Your task to perform on an android device: toggle priority inbox in the gmail app Image 0: 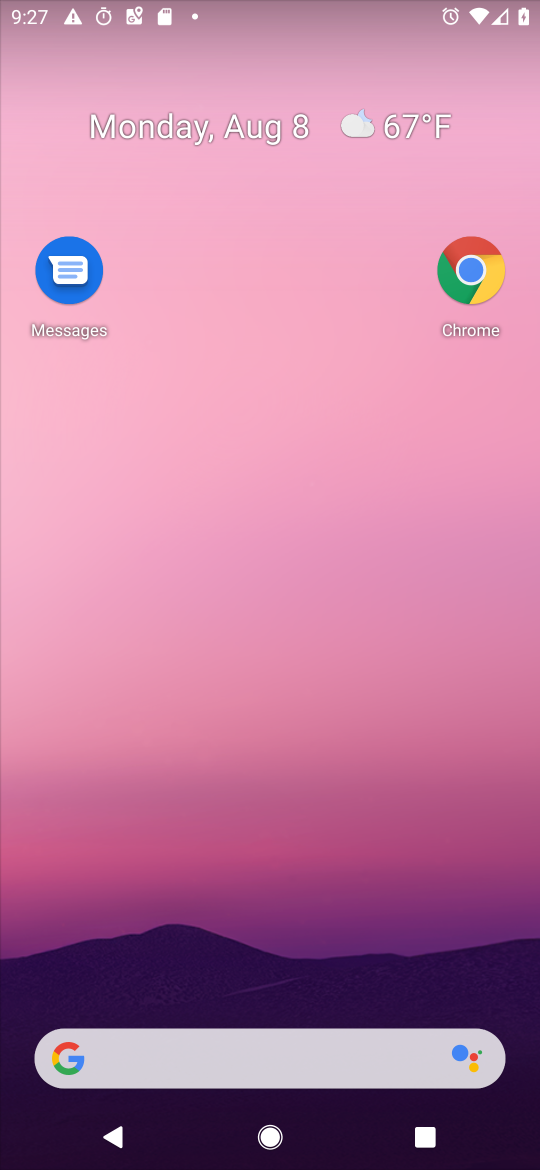
Step 0: drag from (174, 1005) to (321, 281)
Your task to perform on an android device: toggle priority inbox in the gmail app Image 1: 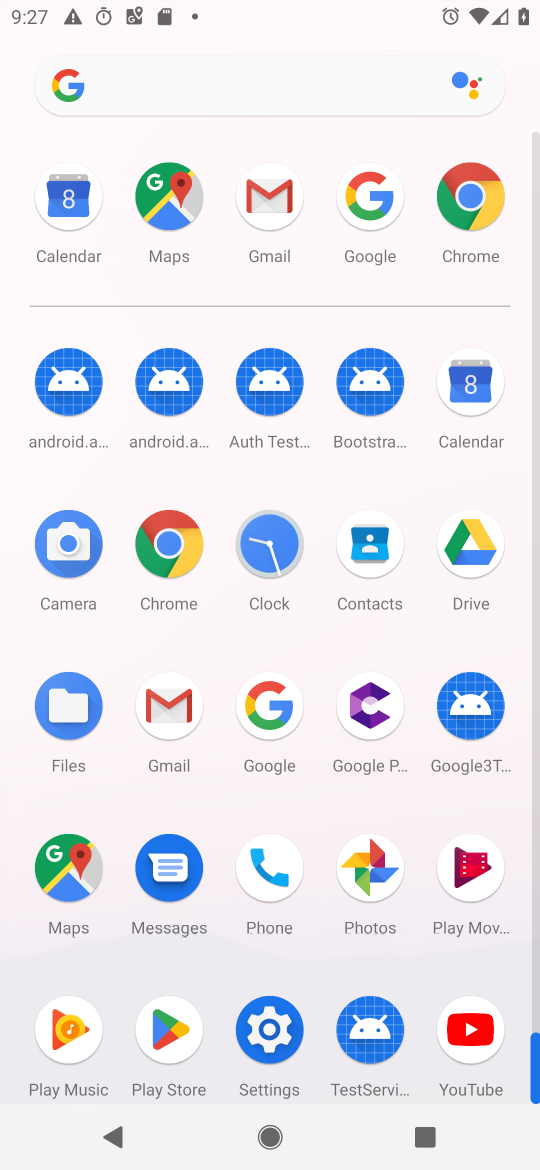
Step 1: click (166, 726)
Your task to perform on an android device: toggle priority inbox in the gmail app Image 2: 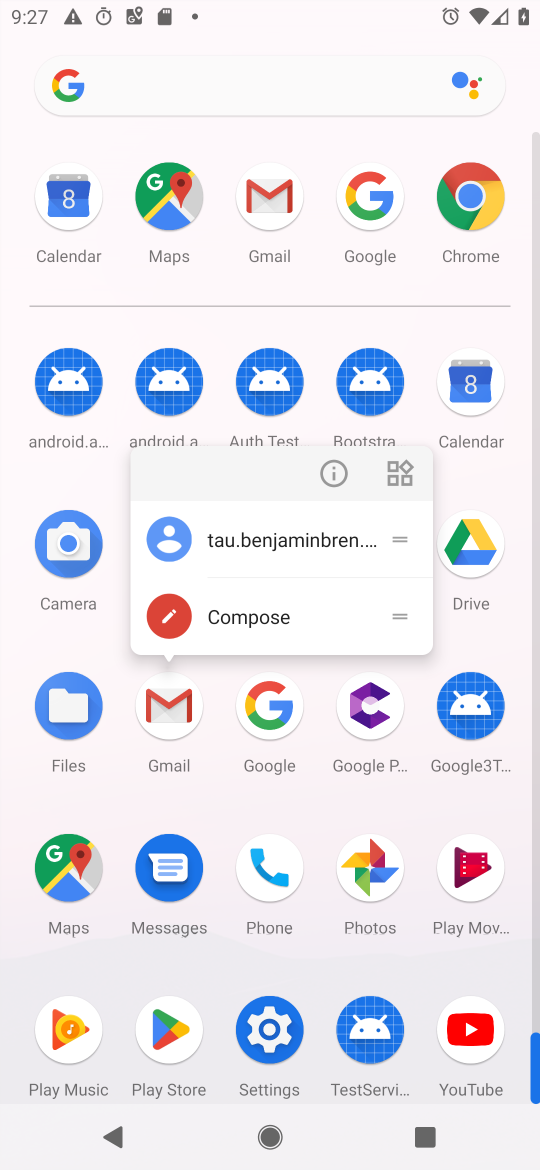
Step 2: click (334, 468)
Your task to perform on an android device: toggle priority inbox in the gmail app Image 3: 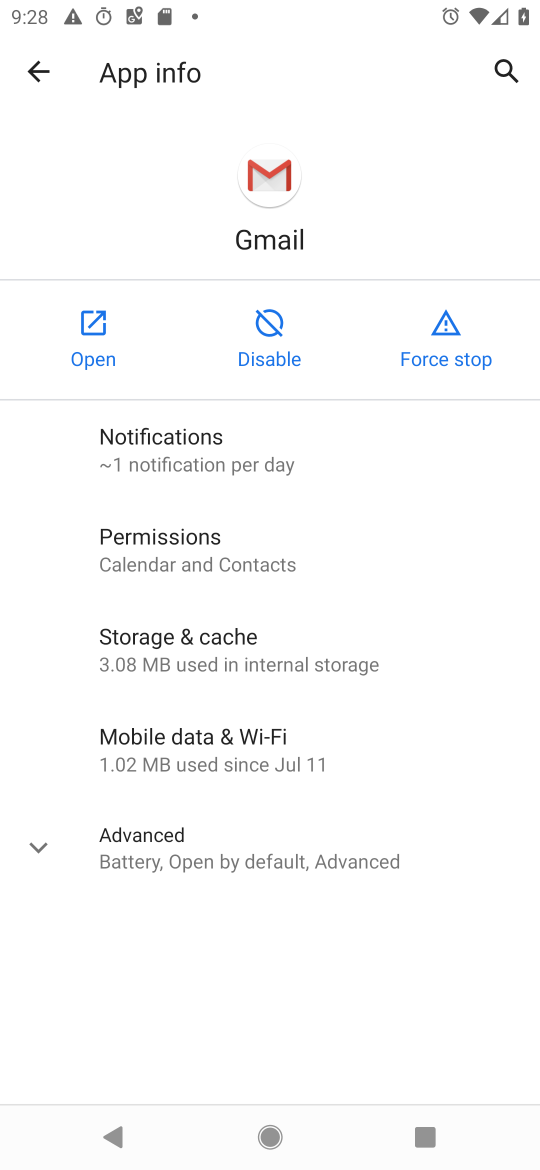
Step 3: click (76, 345)
Your task to perform on an android device: toggle priority inbox in the gmail app Image 4: 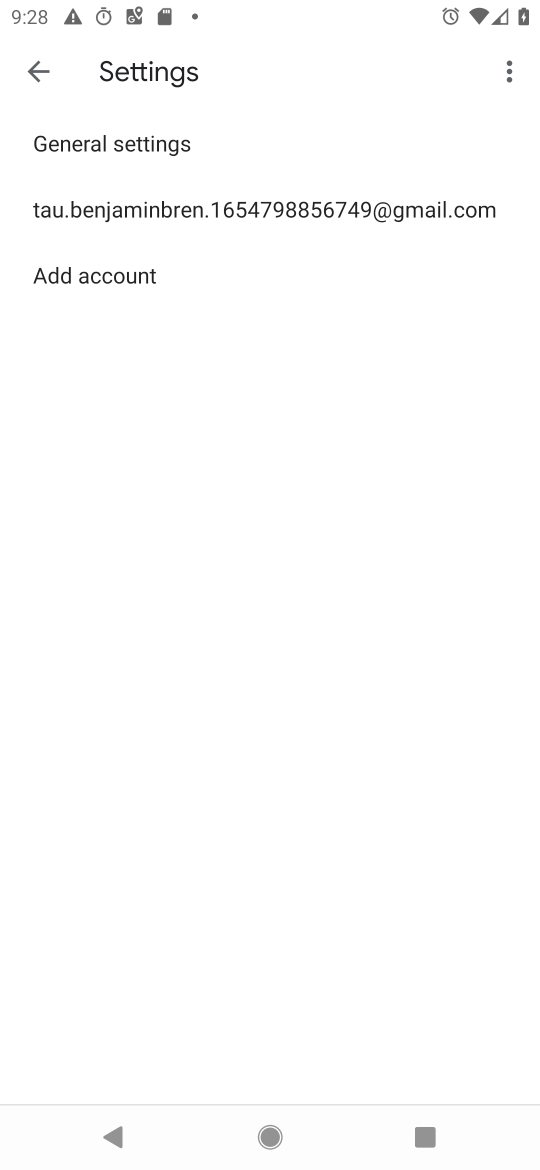
Step 4: click (269, 199)
Your task to perform on an android device: toggle priority inbox in the gmail app Image 5: 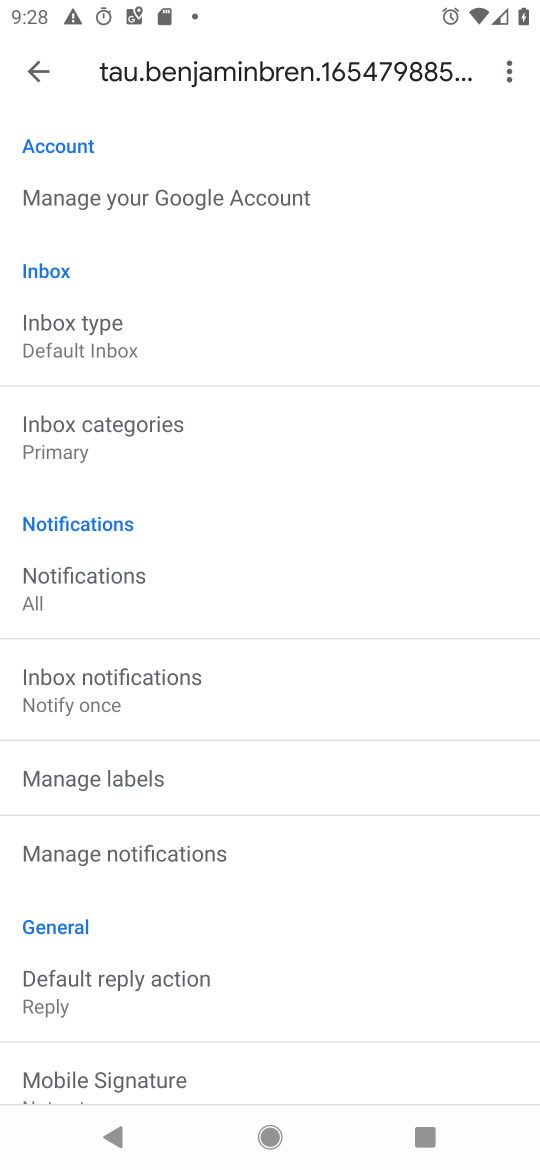
Step 5: drag from (265, 811) to (322, 232)
Your task to perform on an android device: toggle priority inbox in the gmail app Image 6: 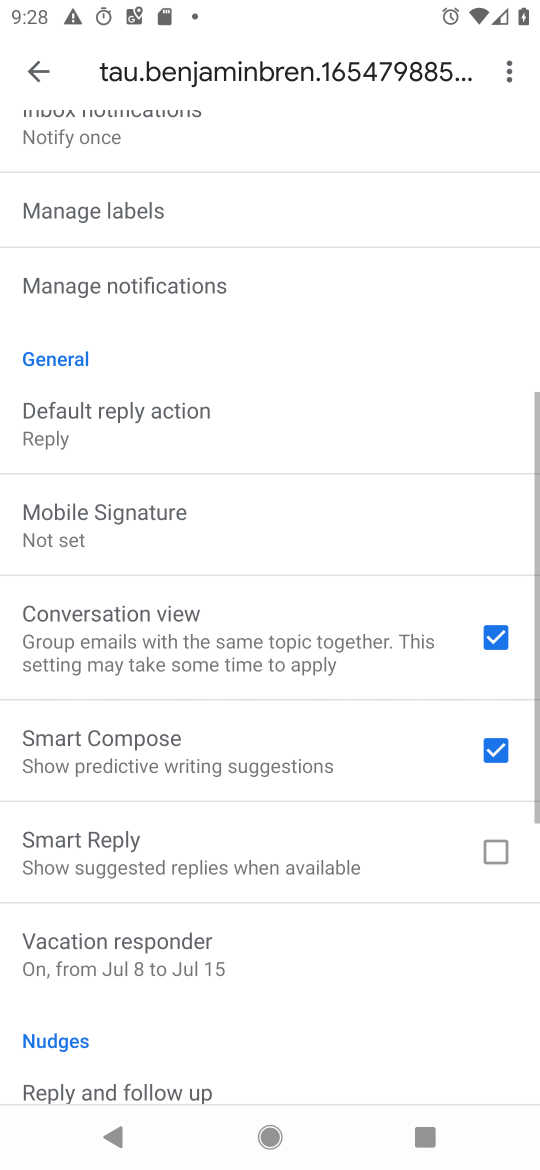
Step 6: drag from (222, 419) to (235, 1165)
Your task to perform on an android device: toggle priority inbox in the gmail app Image 7: 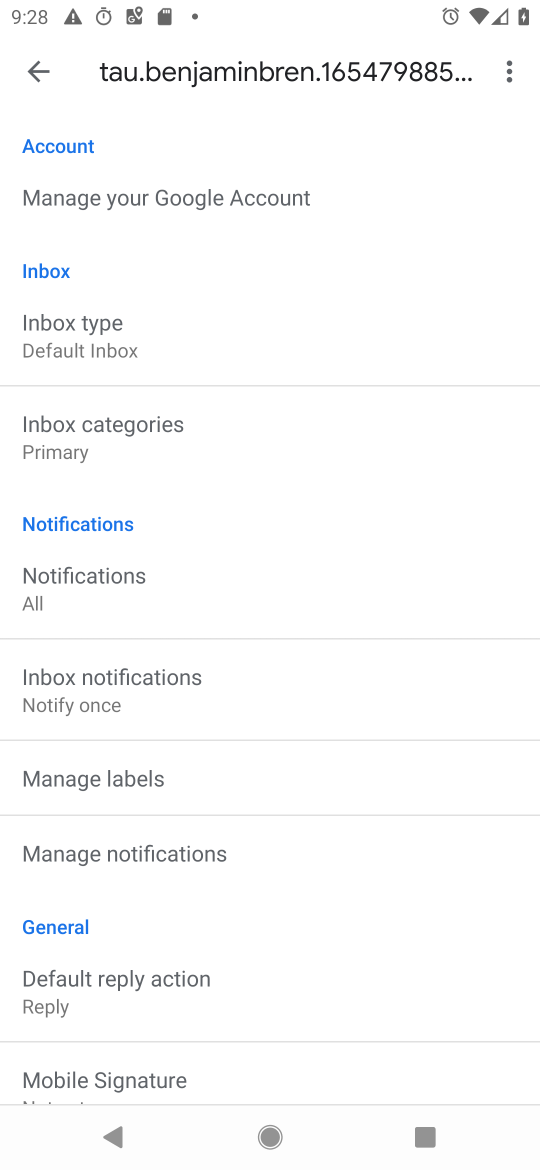
Step 7: click (70, 386)
Your task to perform on an android device: toggle priority inbox in the gmail app Image 8: 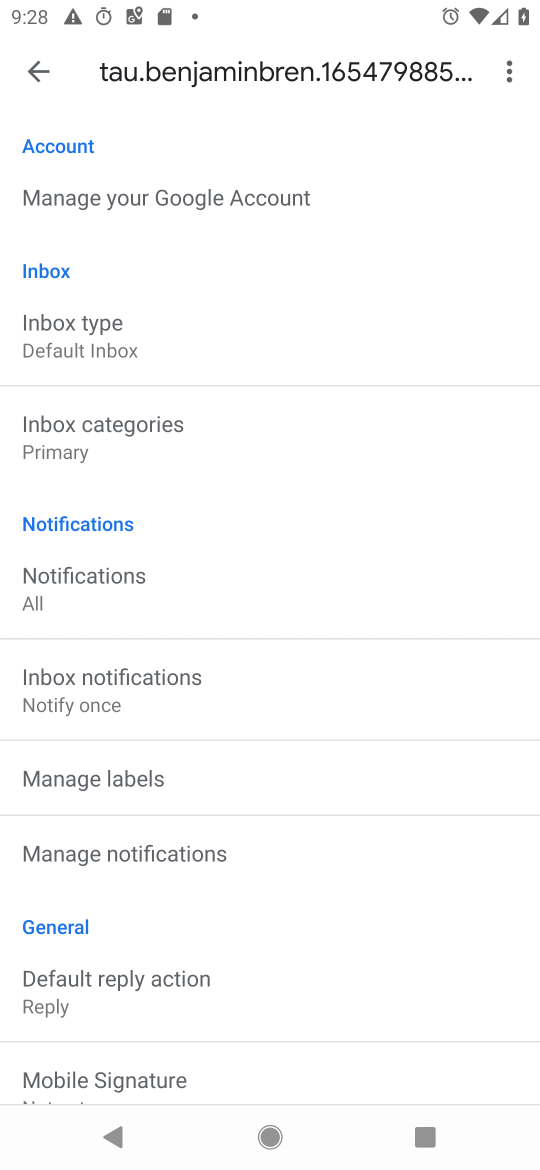
Step 8: click (86, 362)
Your task to perform on an android device: toggle priority inbox in the gmail app Image 9: 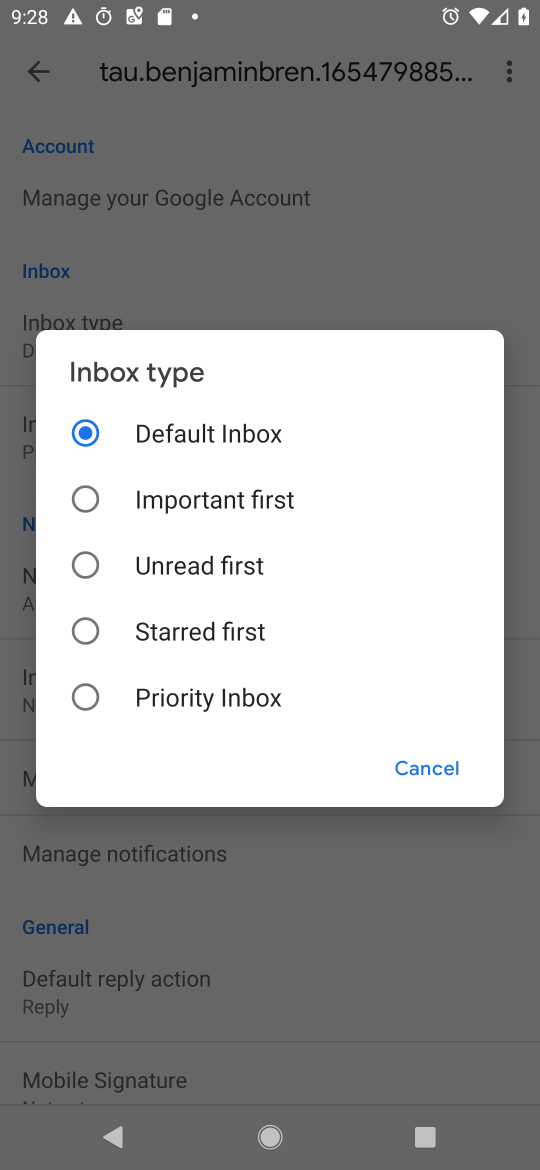
Step 9: click (75, 691)
Your task to perform on an android device: toggle priority inbox in the gmail app Image 10: 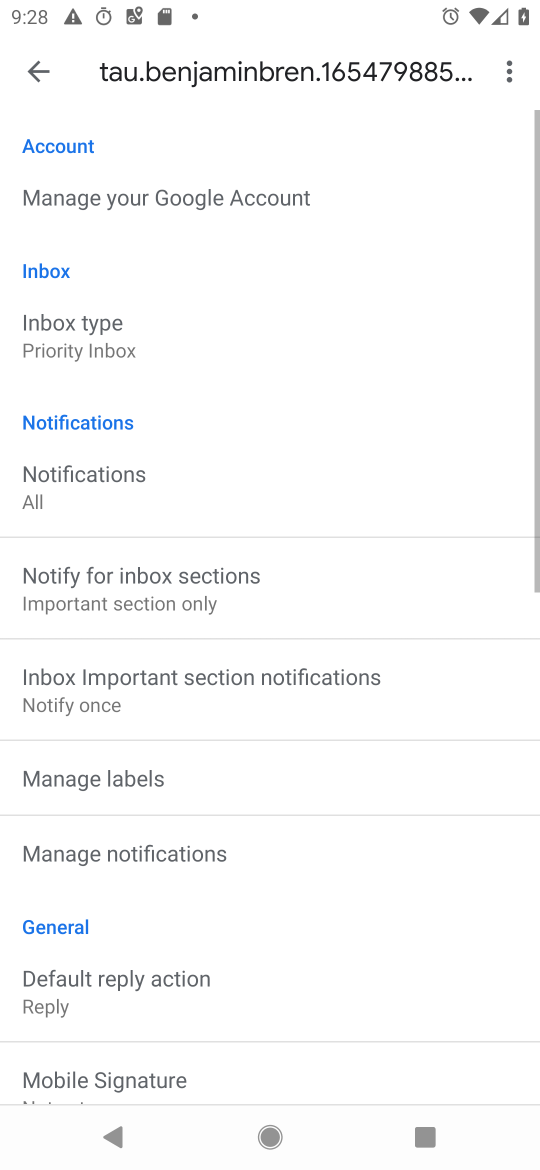
Step 10: task complete